Your task to perform on an android device: Open calendar and show me the fourth week of next month Image 0: 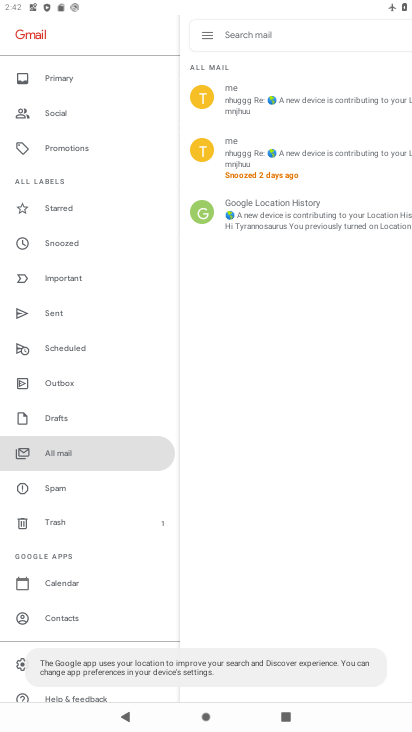
Step 0: press home button
Your task to perform on an android device: Open calendar and show me the fourth week of next month Image 1: 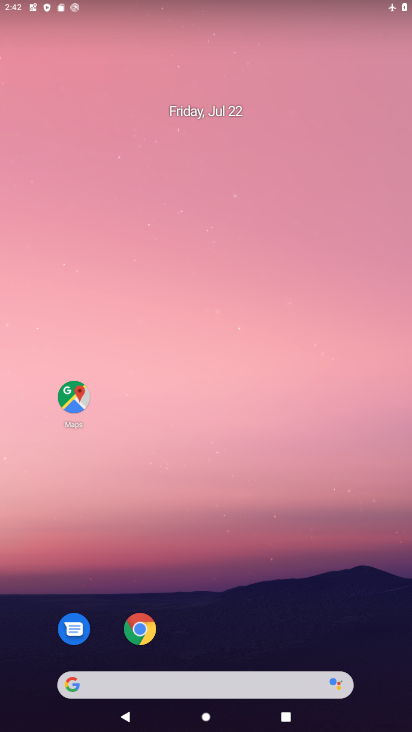
Step 1: press home button
Your task to perform on an android device: Open calendar and show me the fourth week of next month Image 2: 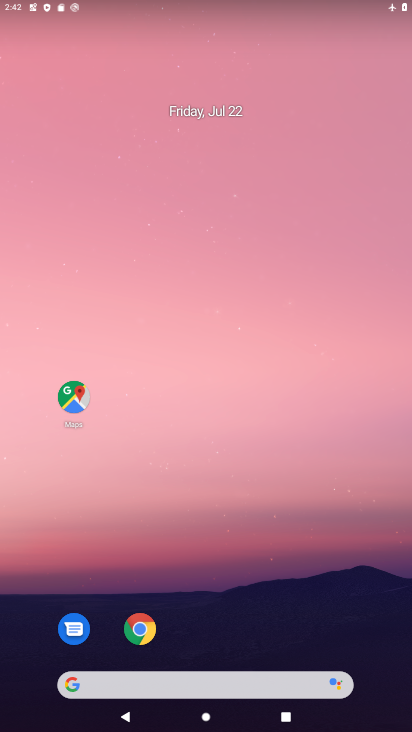
Step 2: drag from (187, 697) to (140, 145)
Your task to perform on an android device: Open calendar and show me the fourth week of next month Image 3: 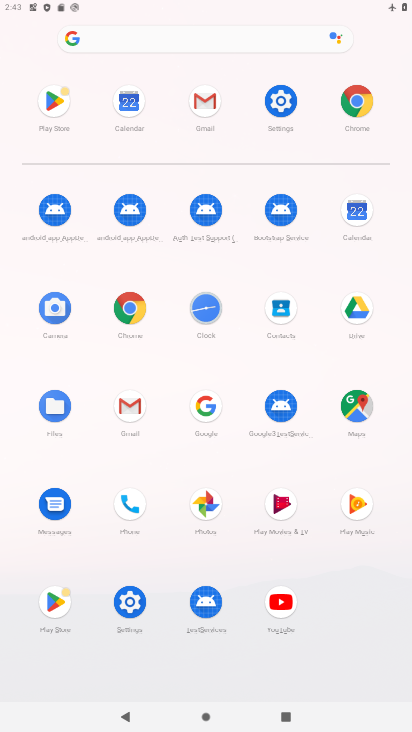
Step 3: click (354, 208)
Your task to perform on an android device: Open calendar and show me the fourth week of next month Image 4: 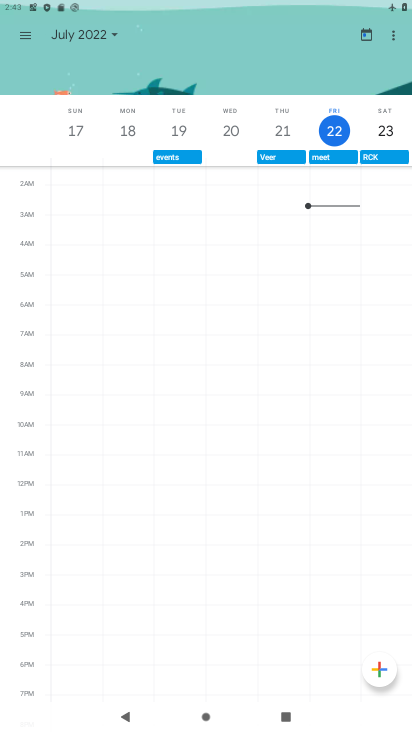
Step 4: click (30, 31)
Your task to perform on an android device: Open calendar and show me the fourth week of next month Image 5: 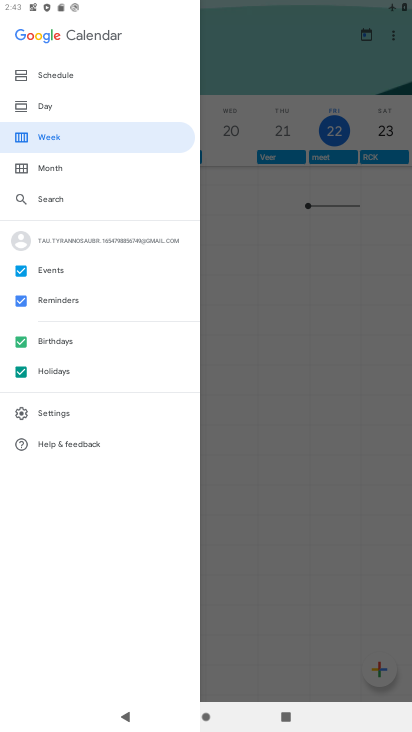
Step 5: click (74, 162)
Your task to perform on an android device: Open calendar and show me the fourth week of next month Image 6: 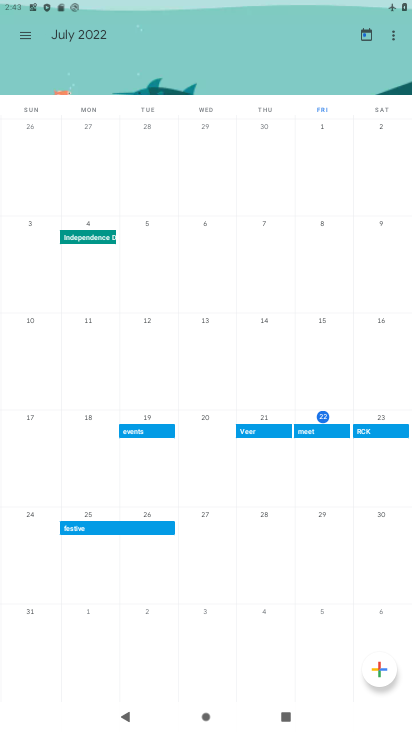
Step 6: task complete